Your task to perform on an android device: Search for sushi restaurants on Maps Image 0: 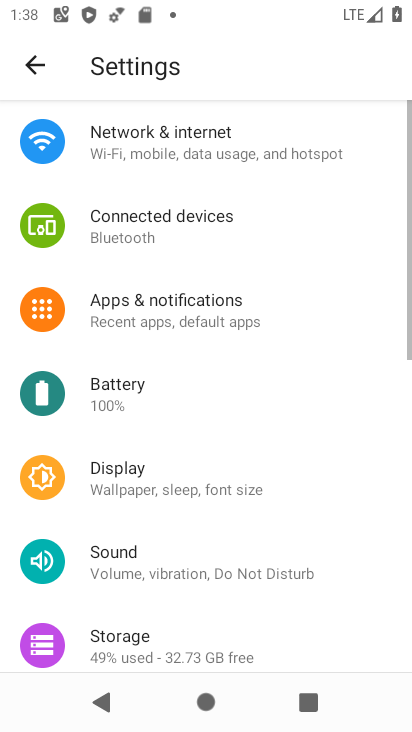
Step 0: press home button
Your task to perform on an android device: Search for sushi restaurants on Maps Image 1: 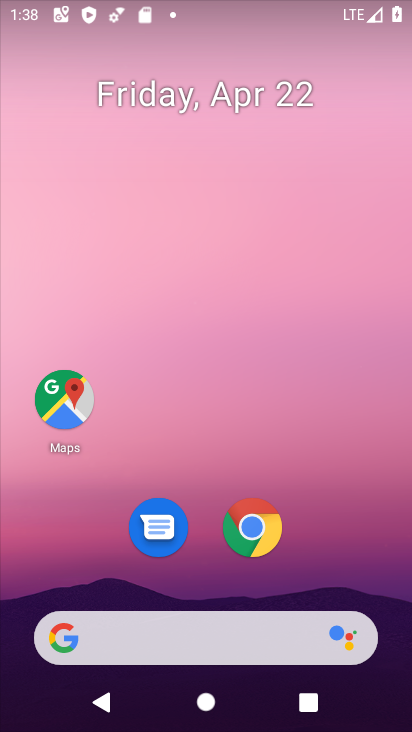
Step 1: click (70, 399)
Your task to perform on an android device: Search for sushi restaurants on Maps Image 2: 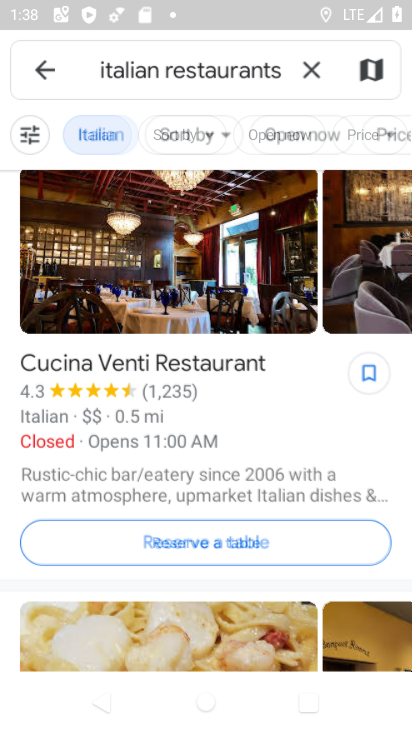
Step 2: click (311, 74)
Your task to perform on an android device: Search for sushi restaurants on Maps Image 3: 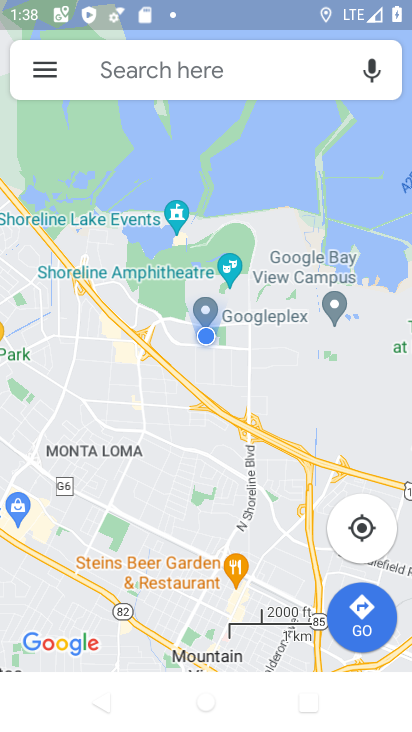
Step 3: click (221, 71)
Your task to perform on an android device: Search for sushi restaurants on Maps Image 4: 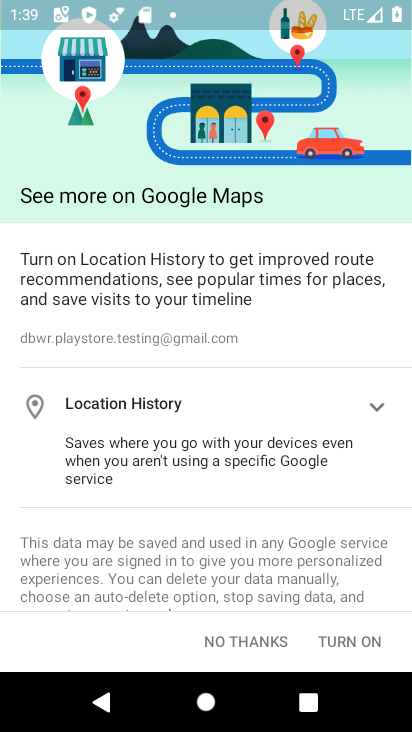
Step 4: press back button
Your task to perform on an android device: Search for sushi restaurants on Maps Image 5: 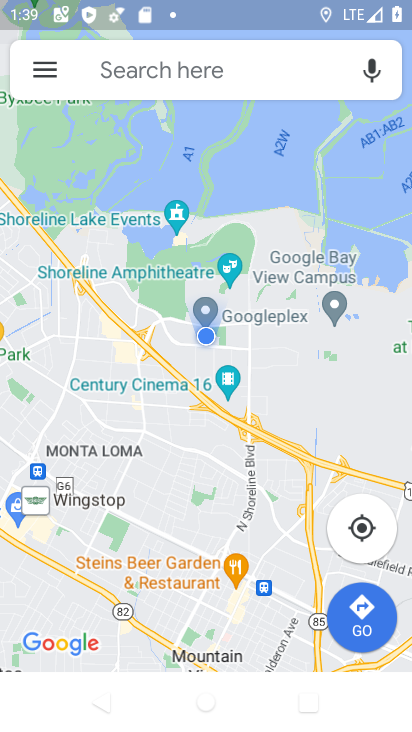
Step 5: click (177, 58)
Your task to perform on an android device: Search for sushi restaurants on Maps Image 6: 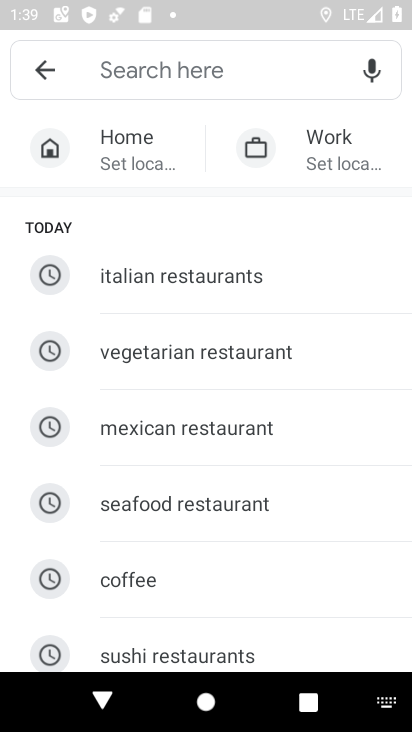
Step 6: click (201, 655)
Your task to perform on an android device: Search for sushi restaurants on Maps Image 7: 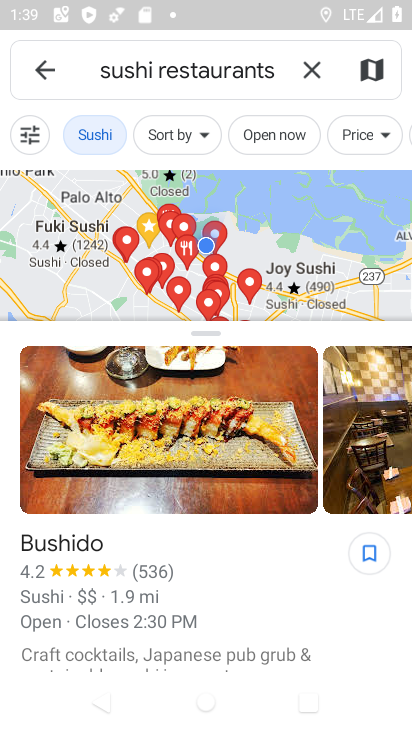
Step 7: task complete